Your task to perform on an android device: Go to internet settings Image 0: 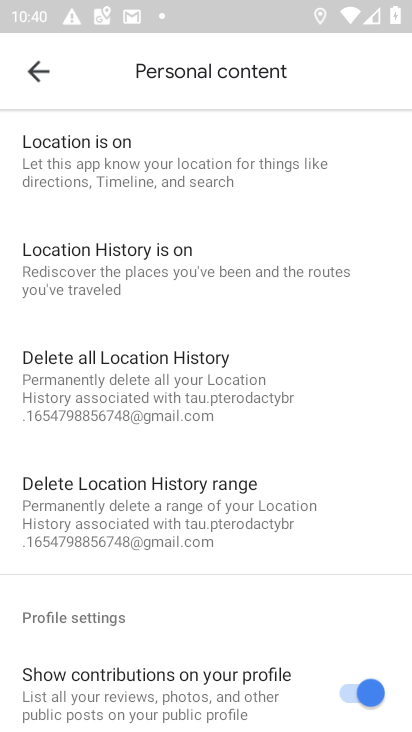
Step 0: press home button
Your task to perform on an android device: Go to internet settings Image 1: 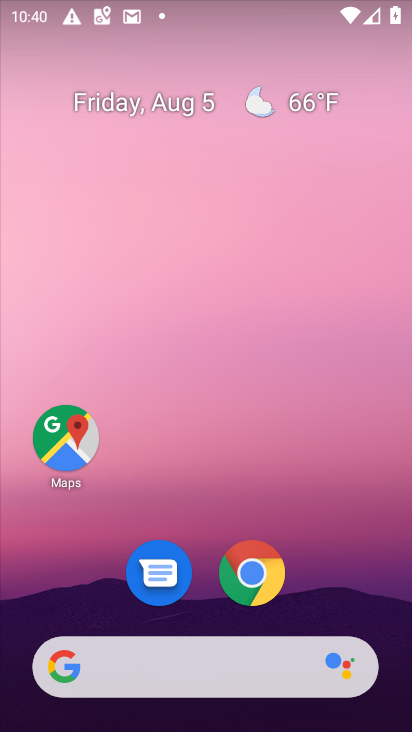
Step 1: drag from (305, 605) to (289, 0)
Your task to perform on an android device: Go to internet settings Image 2: 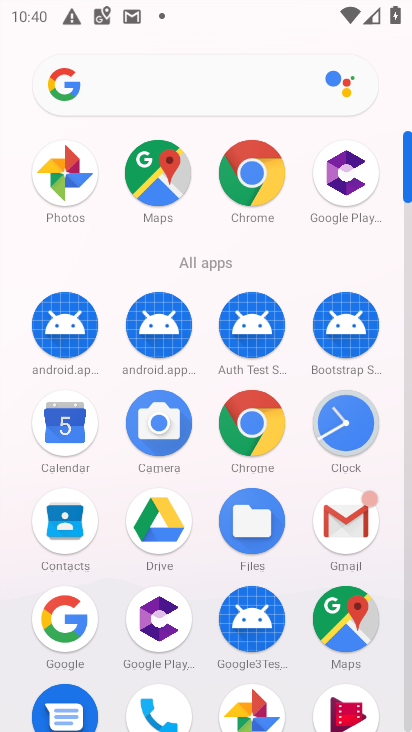
Step 2: drag from (207, 574) to (177, 218)
Your task to perform on an android device: Go to internet settings Image 3: 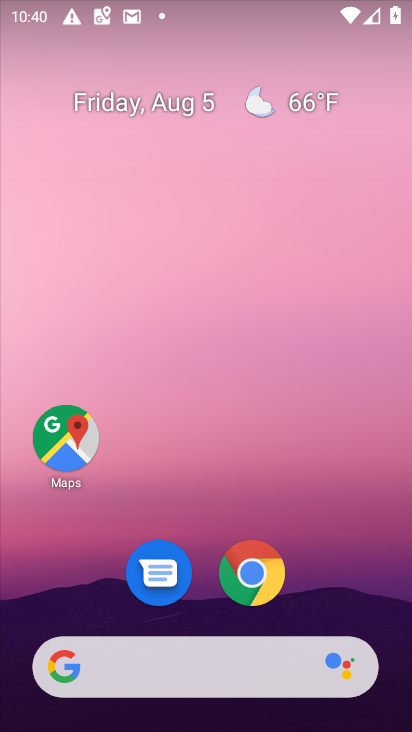
Step 3: drag from (302, 587) to (283, 36)
Your task to perform on an android device: Go to internet settings Image 4: 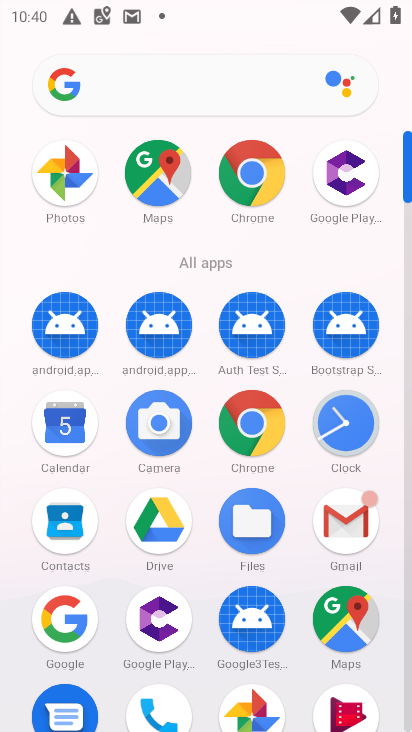
Step 4: drag from (202, 587) to (224, 234)
Your task to perform on an android device: Go to internet settings Image 5: 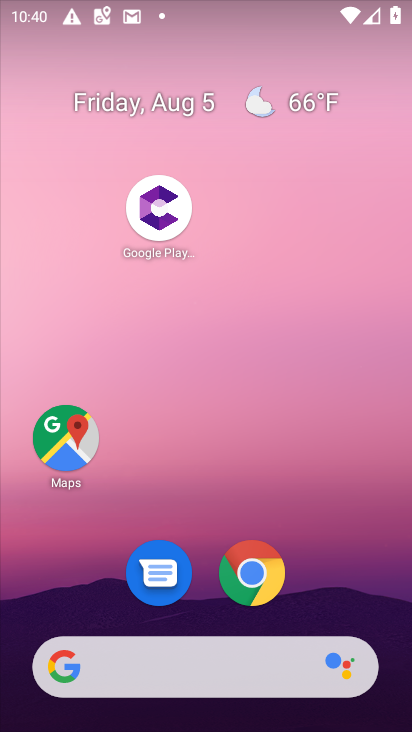
Step 5: drag from (317, 588) to (262, 62)
Your task to perform on an android device: Go to internet settings Image 6: 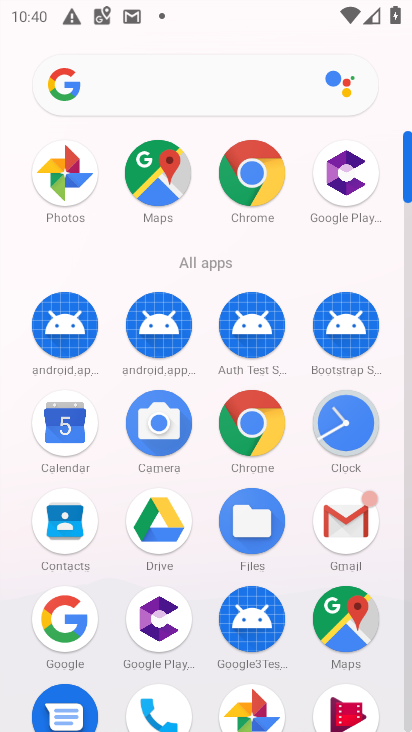
Step 6: drag from (205, 571) to (192, 115)
Your task to perform on an android device: Go to internet settings Image 7: 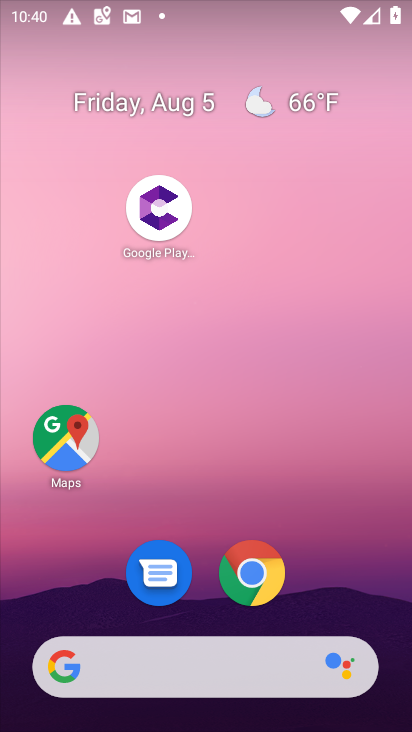
Step 7: drag from (307, 599) to (319, 154)
Your task to perform on an android device: Go to internet settings Image 8: 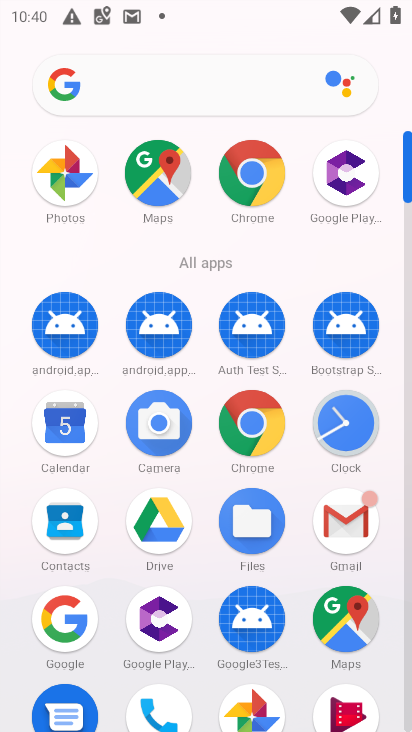
Step 8: drag from (390, 659) to (347, 269)
Your task to perform on an android device: Go to internet settings Image 9: 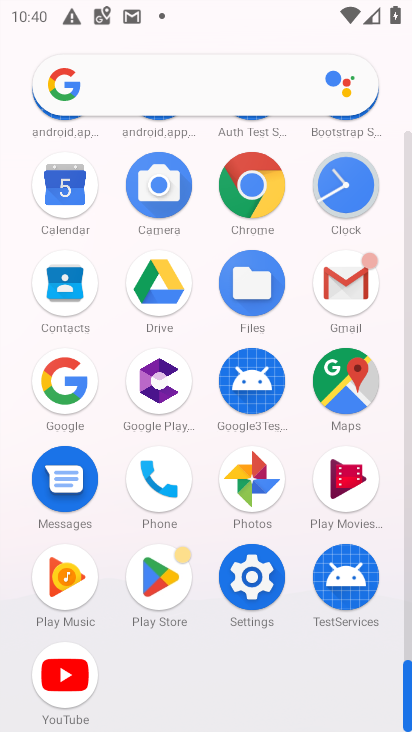
Step 9: click (246, 582)
Your task to perform on an android device: Go to internet settings Image 10: 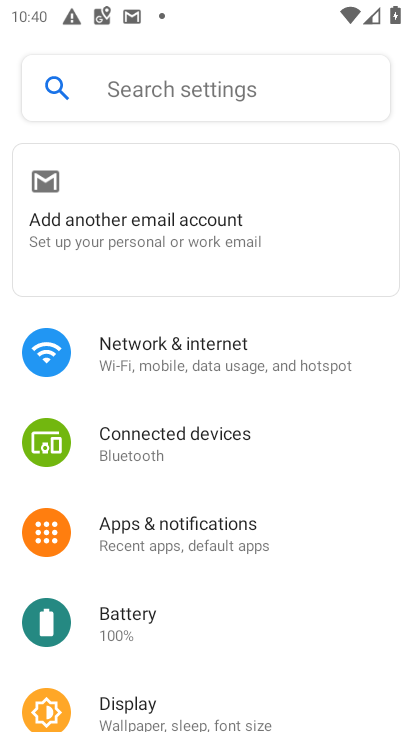
Step 10: click (178, 351)
Your task to perform on an android device: Go to internet settings Image 11: 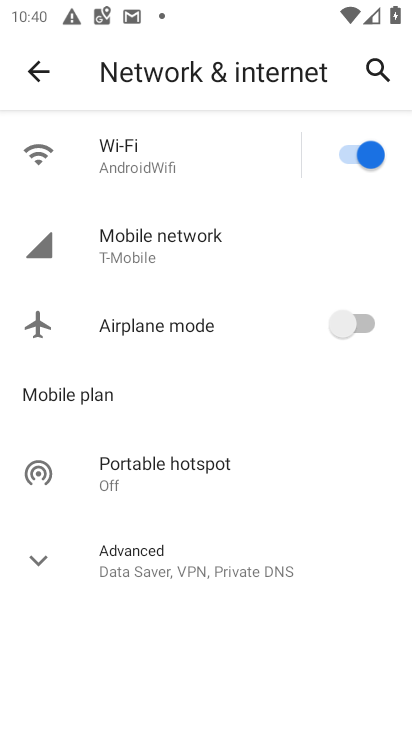
Step 11: click (30, 556)
Your task to perform on an android device: Go to internet settings Image 12: 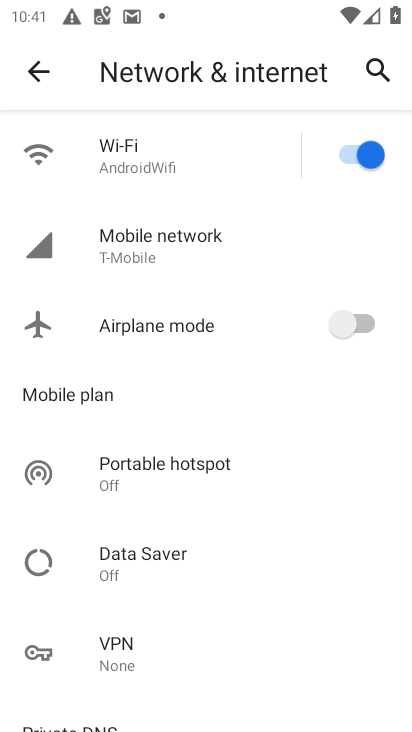
Step 12: task complete